Your task to perform on an android device: add a contact Image 0: 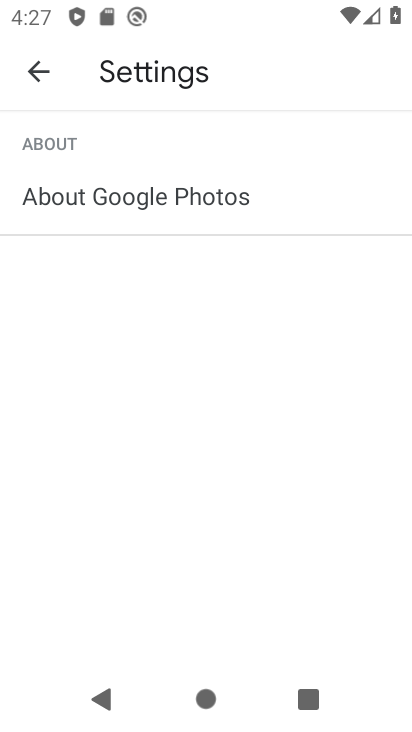
Step 0: press home button
Your task to perform on an android device: add a contact Image 1: 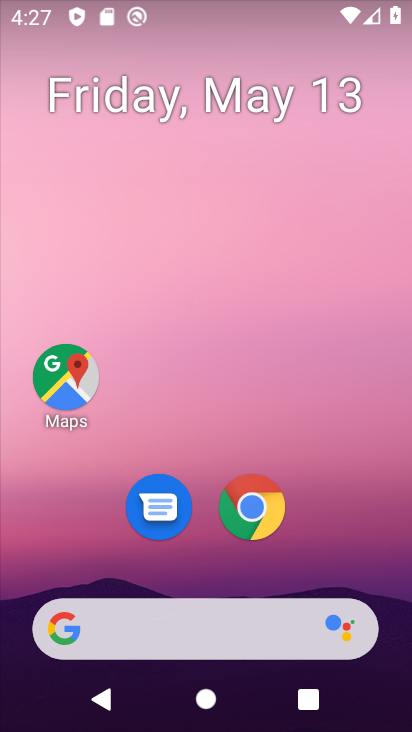
Step 1: drag from (318, 547) to (232, 30)
Your task to perform on an android device: add a contact Image 2: 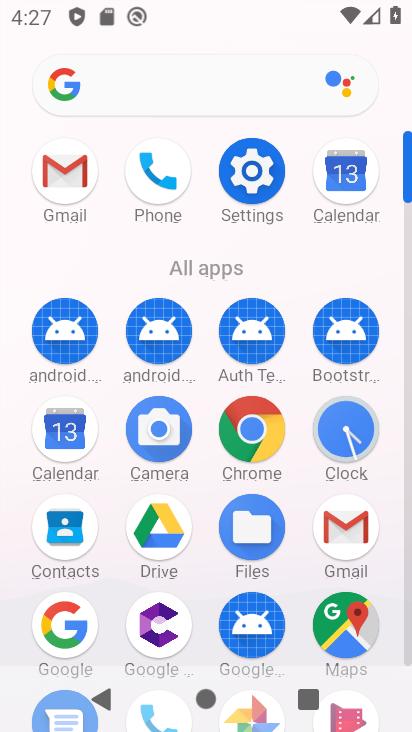
Step 2: click (69, 529)
Your task to perform on an android device: add a contact Image 3: 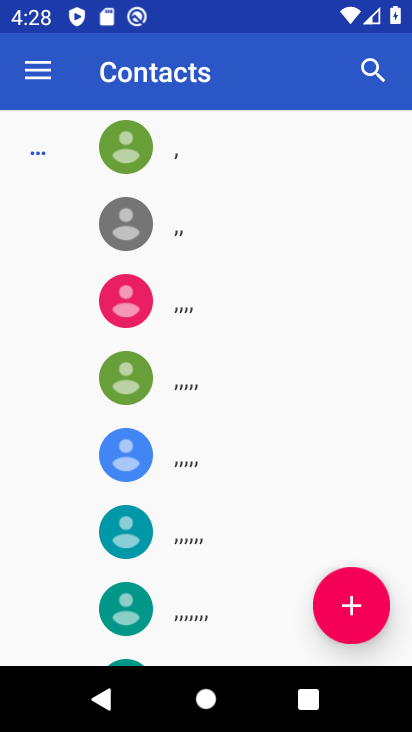
Step 3: click (354, 616)
Your task to perform on an android device: add a contact Image 4: 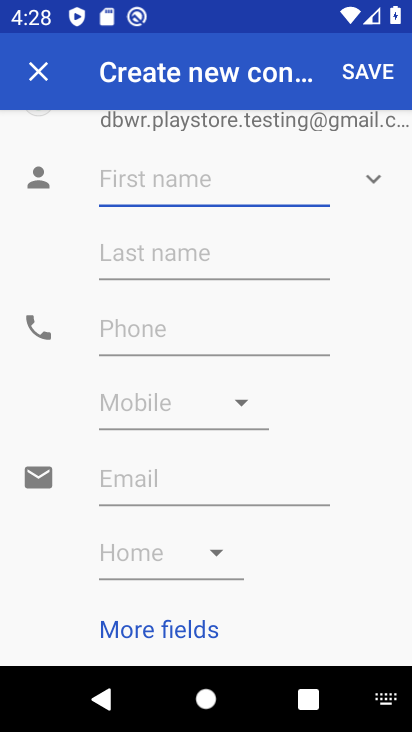
Step 4: type "fgsdfgsdf"
Your task to perform on an android device: add a contact Image 5: 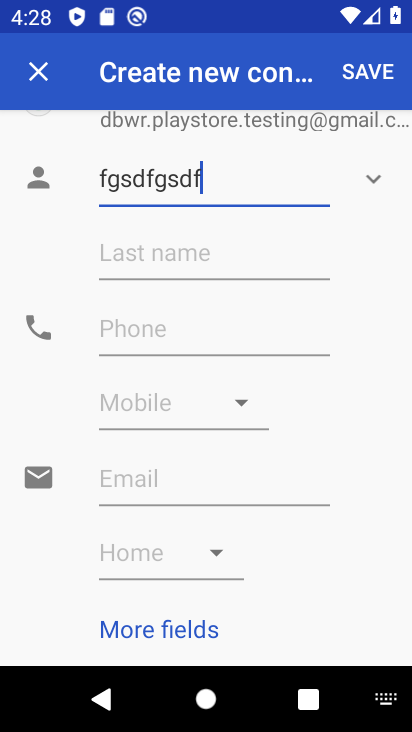
Step 5: type ""
Your task to perform on an android device: add a contact Image 6: 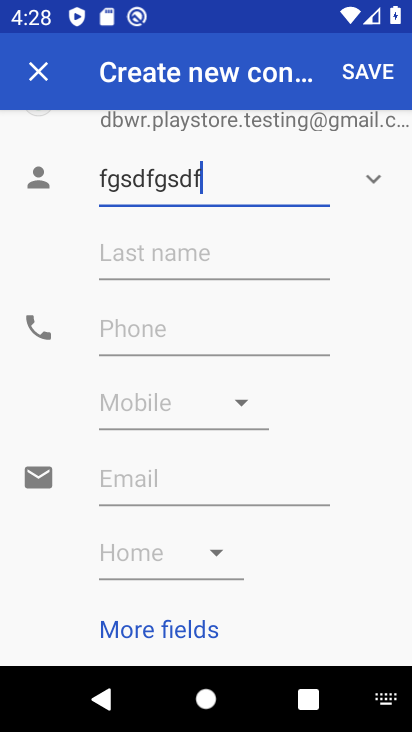
Step 6: click (257, 266)
Your task to perform on an android device: add a contact Image 7: 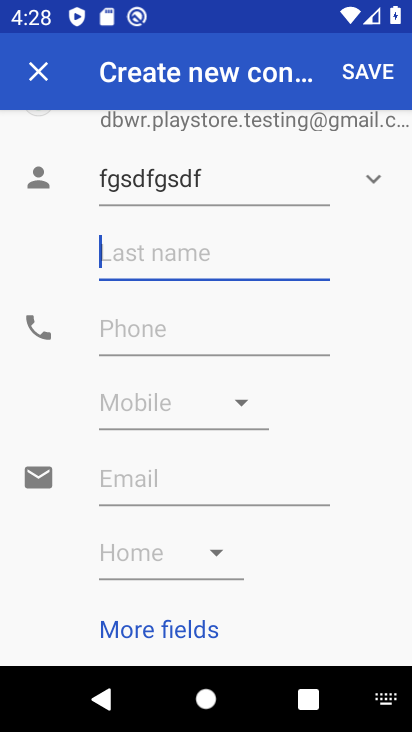
Step 7: type "fgsdfg"
Your task to perform on an android device: add a contact Image 8: 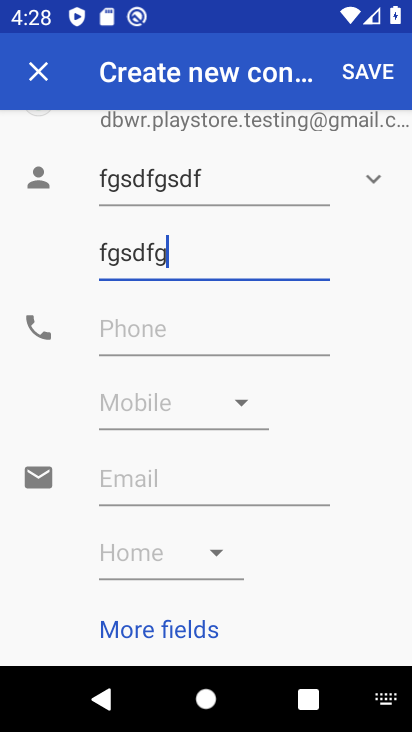
Step 8: type ""
Your task to perform on an android device: add a contact Image 9: 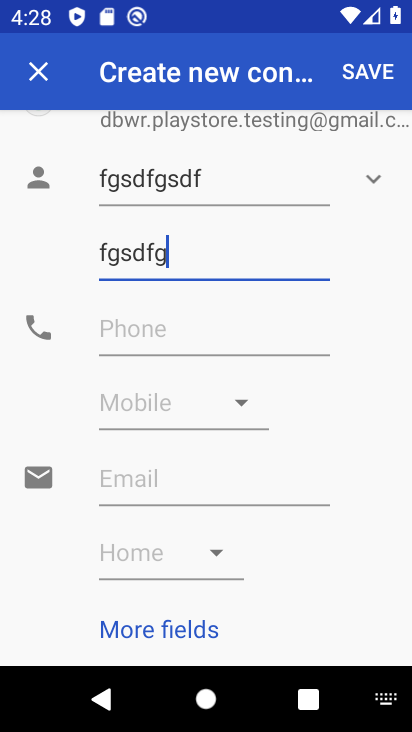
Step 9: click (178, 316)
Your task to perform on an android device: add a contact Image 10: 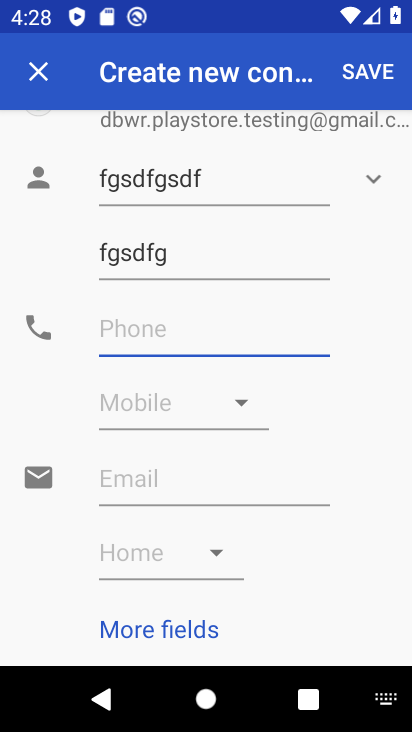
Step 10: type "6456456456"
Your task to perform on an android device: add a contact Image 11: 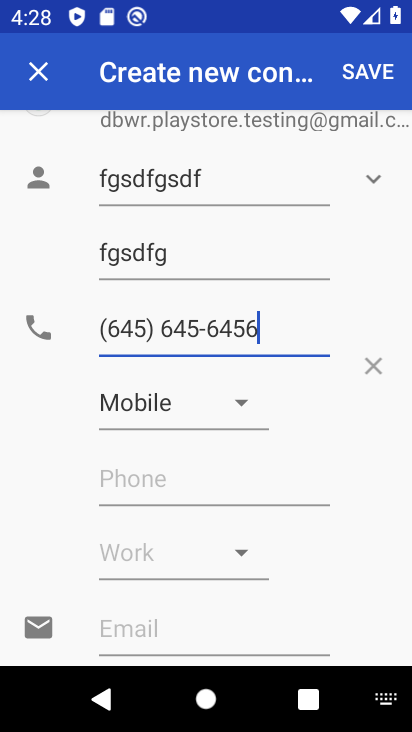
Step 11: click (382, 68)
Your task to perform on an android device: add a contact Image 12: 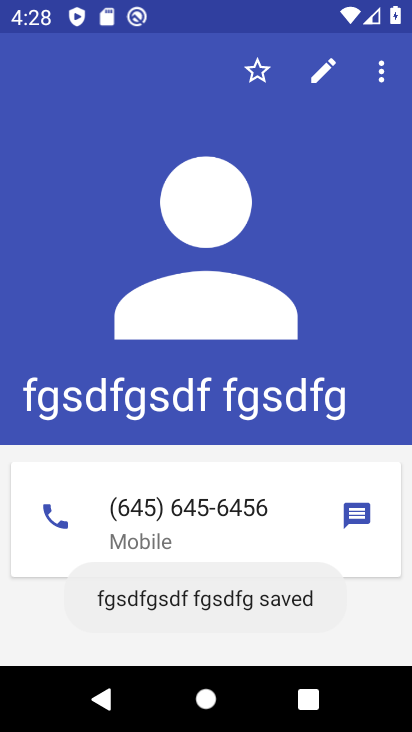
Step 12: task complete